Your task to perform on an android device: turn on javascript in the chrome app Image 0: 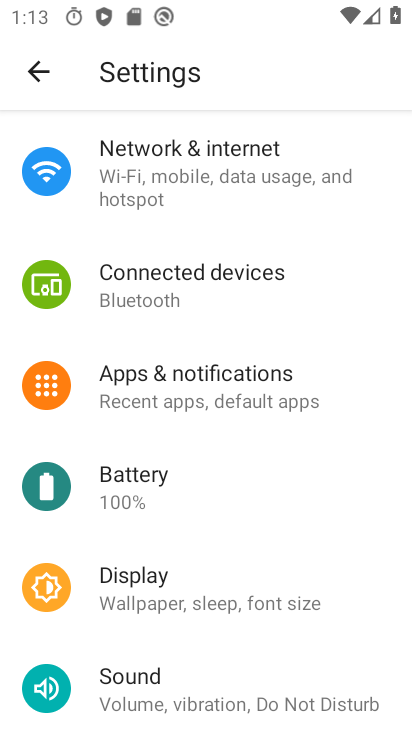
Step 0: press home button
Your task to perform on an android device: turn on javascript in the chrome app Image 1: 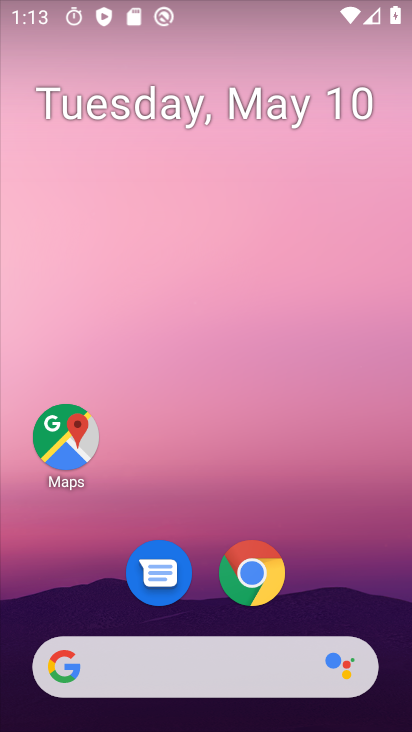
Step 1: drag from (377, 561) to (410, 89)
Your task to perform on an android device: turn on javascript in the chrome app Image 2: 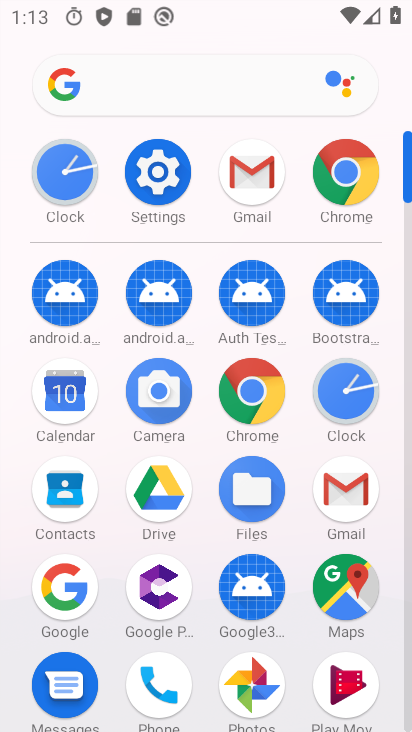
Step 2: click (373, 159)
Your task to perform on an android device: turn on javascript in the chrome app Image 3: 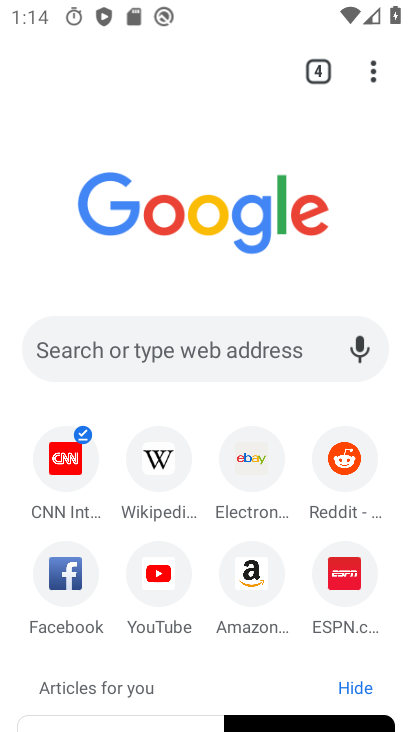
Step 3: drag from (374, 74) to (173, 588)
Your task to perform on an android device: turn on javascript in the chrome app Image 4: 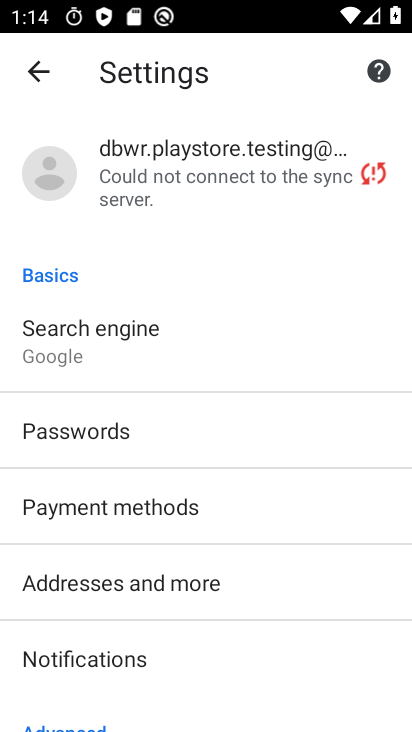
Step 4: drag from (162, 539) to (192, 324)
Your task to perform on an android device: turn on javascript in the chrome app Image 5: 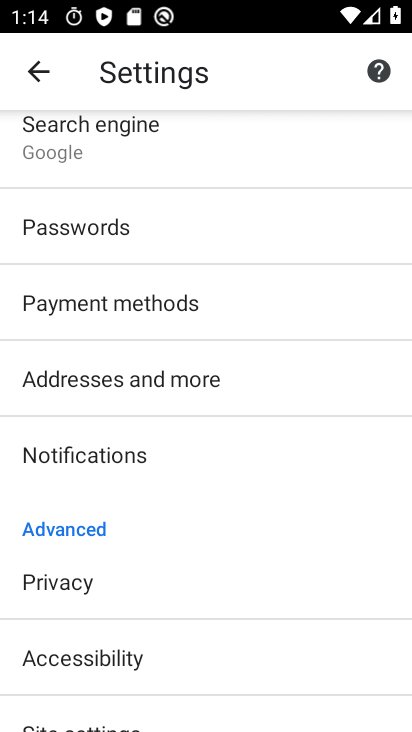
Step 5: drag from (187, 639) to (208, 340)
Your task to perform on an android device: turn on javascript in the chrome app Image 6: 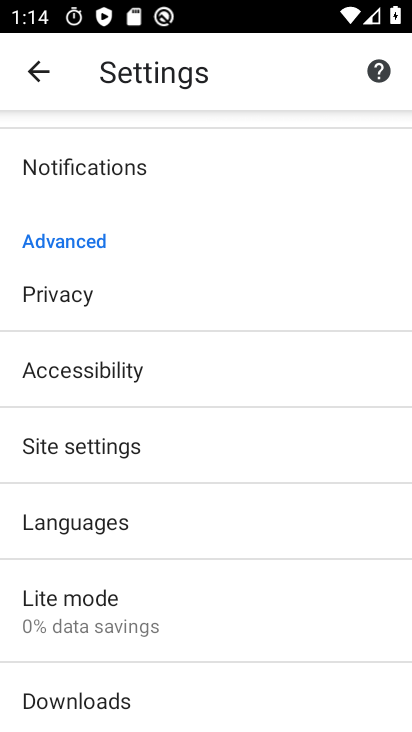
Step 6: drag from (213, 575) to (240, 313)
Your task to perform on an android device: turn on javascript in the chrome app Image 7: 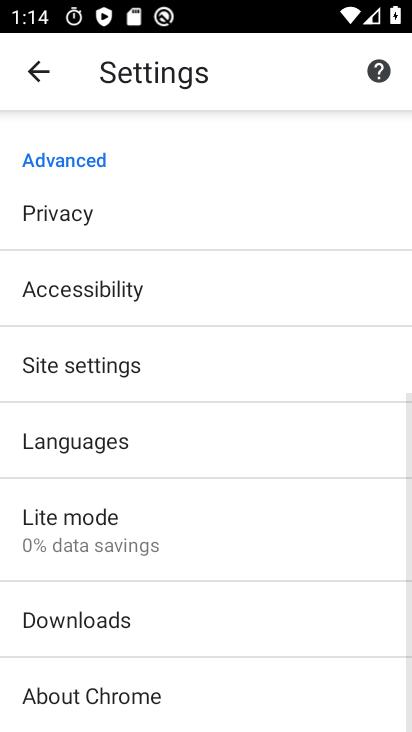
Step 7: click (126, 369)
Your task to perform on an android device: turn on javascript in the chrome app Image 8: 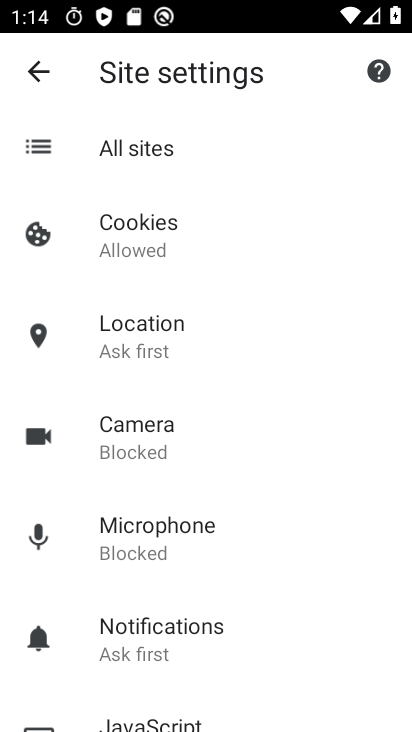
Step 8: drag from (187, 514) to (180, 238)
Your task to perform on an android device: turn on javascript in the chrome app Image 9: 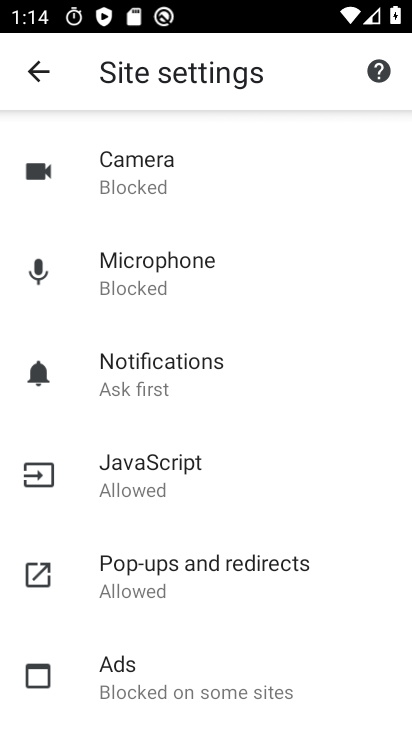
Step 9: click (186, 482)
Your task to perform on an android device: turn on javascript in the chrome app Image 10: 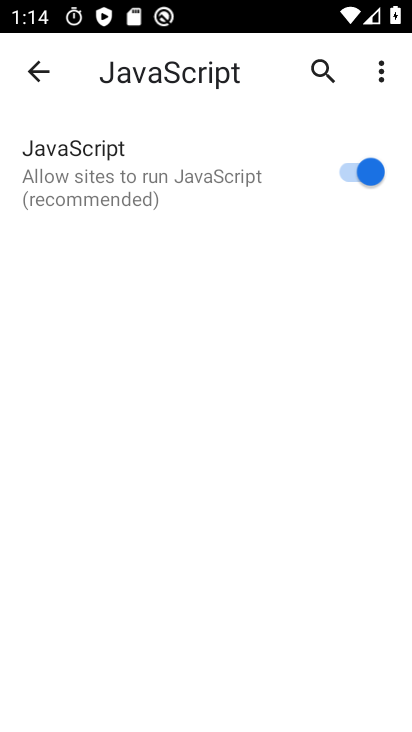
Step 10: task complete